Your task to perform on an android device: add a contact Image 0: 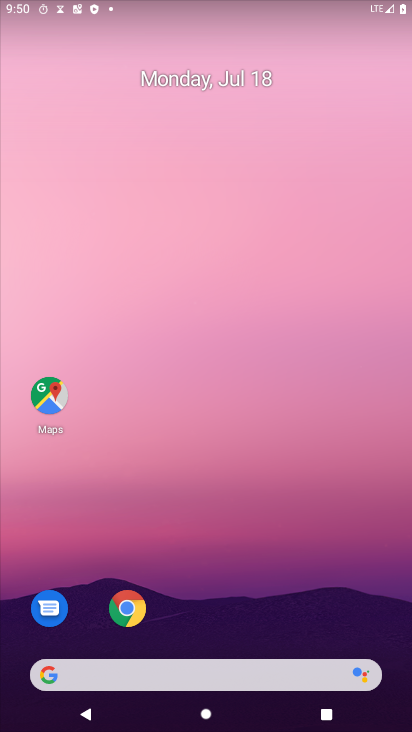
Step 0: drag from (173, 496) to (176, 118)
Your task to perform on an android device: add a contact Image 1: 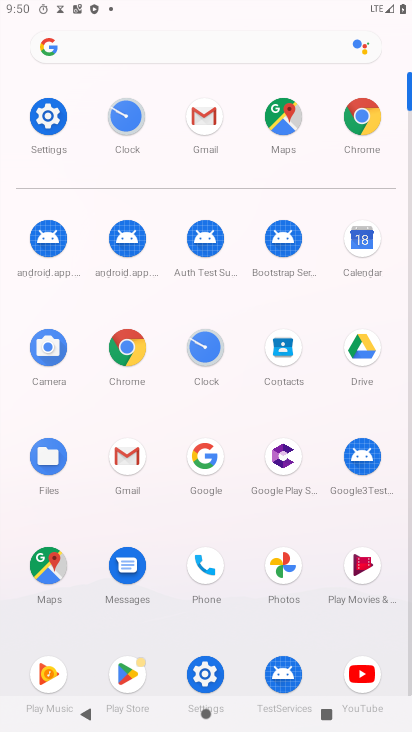
Step 1: click (290, 369)
Your task to perform on an android device: add a contact Image 2: 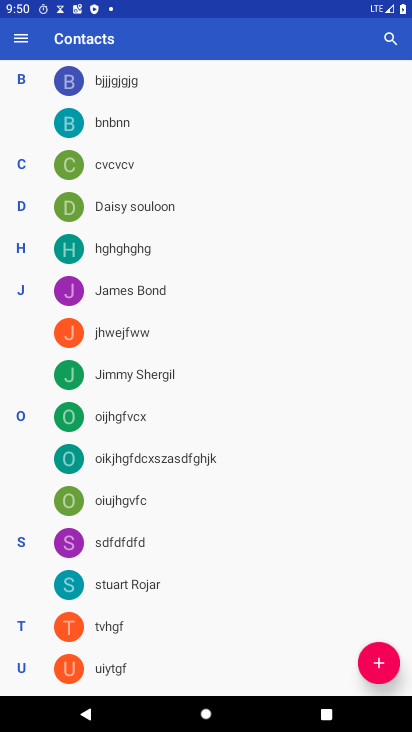
Step 2: click (374, 656)
Your task to perform on an android device: add a contact Image 3: 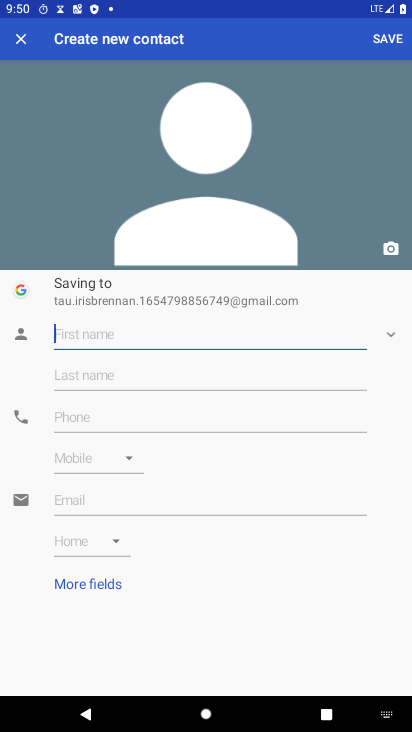
Step 3: type "Lovely"
Your task to perform on an android device: add a contact Image 4: 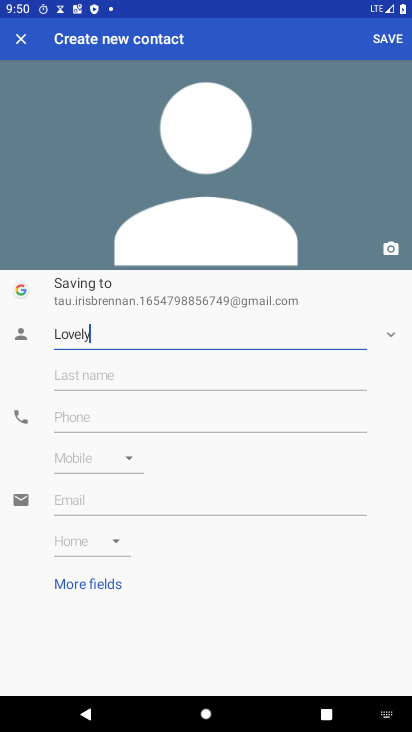
Step 4: click (269, 417)
Your task to perform on an android device: add a contact Image 5: 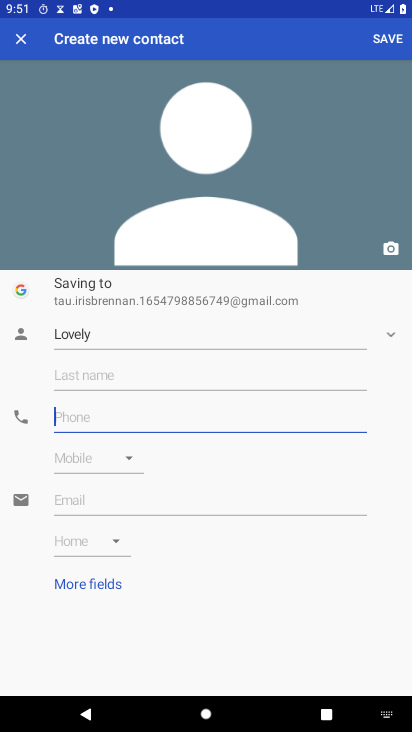
Step 5: type "7887787790"
Your task to perform on an android device: add a contact Image 6: 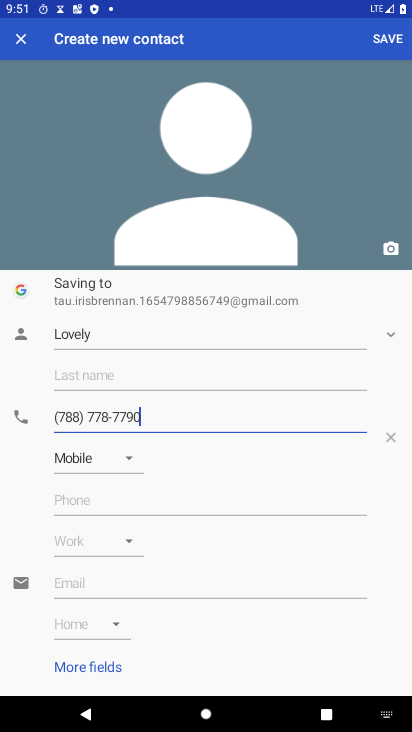
Step 6: click (384, 40)
Your task to perform on an android device: add a contact Image 7: 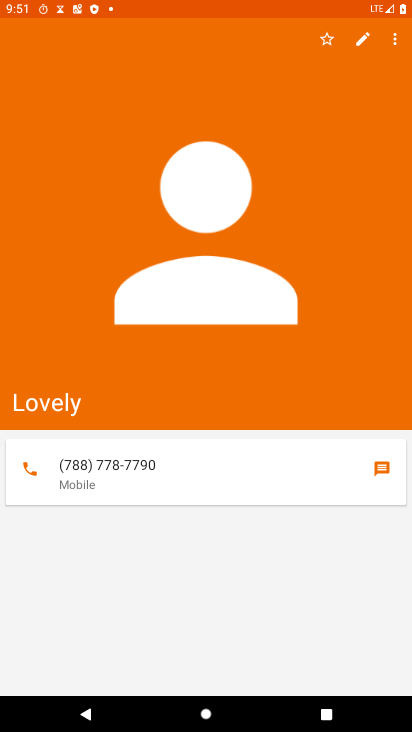
Step 7: task complete